Your task to perform on an android device: open app "Facebook Lite" (install if not already installed) Image 0: 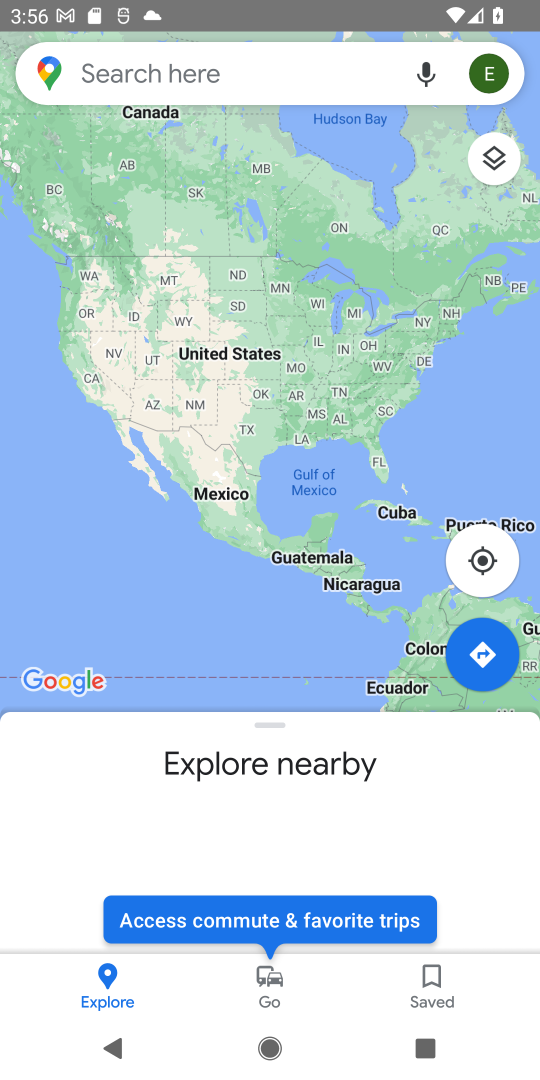
Step 0: press home button
Your task to perform on an android device: open app "Facebook Lite" (install if not already installed) Image 1: 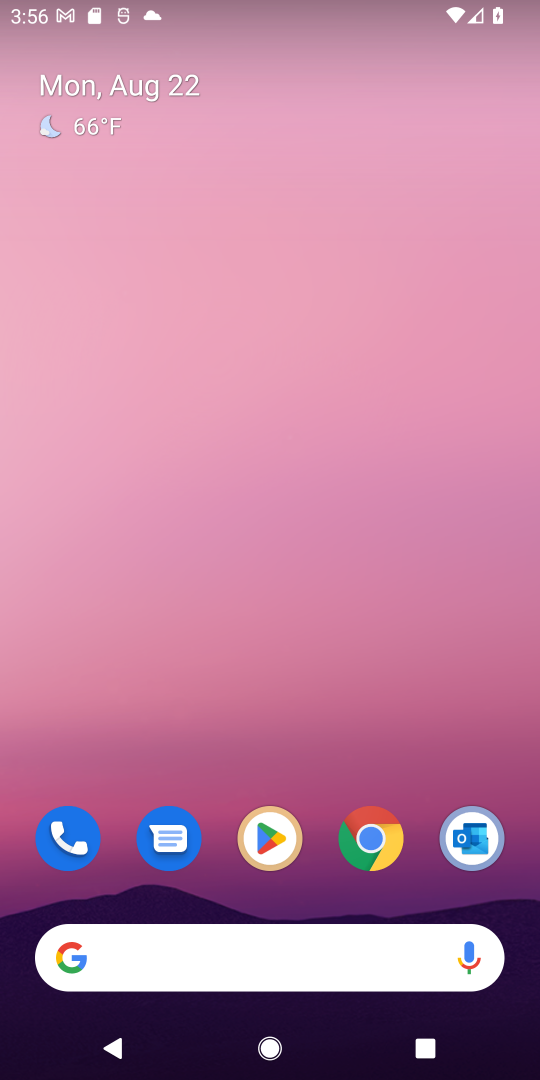
Step 1: click (279, 815)
Your task to perform on an android device: open app "Facebook Lite" (install if not already installed) Image 2: 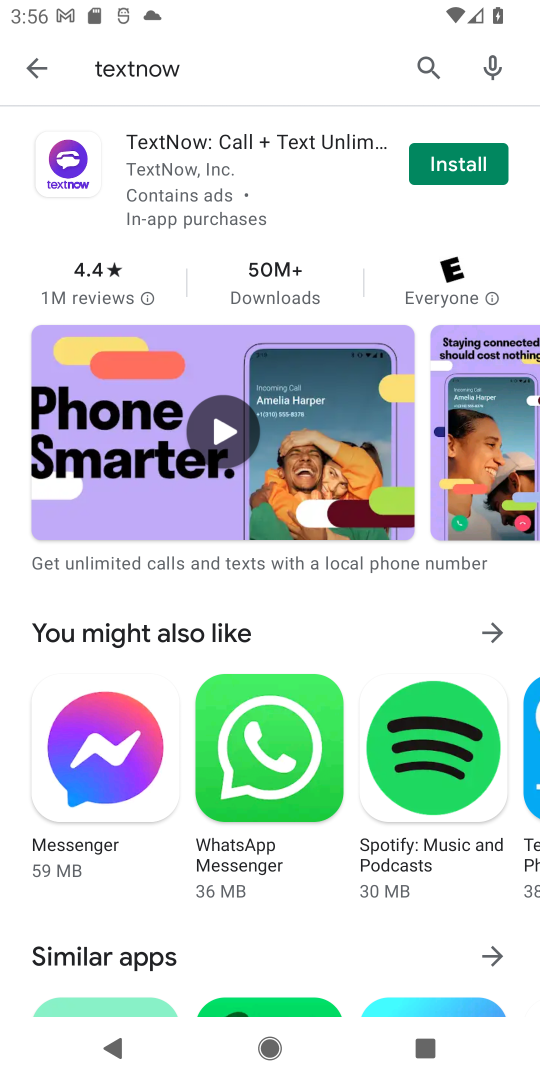
Step 2: click (412, 71)
Your task to perform on an android device: open app "Facebook Lite" (install if not already installed) Image 3: 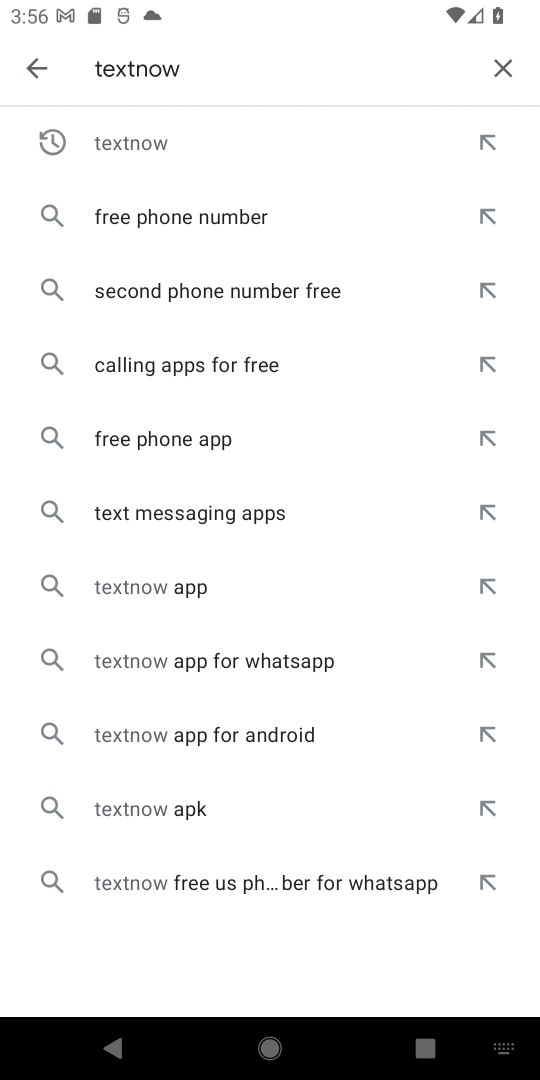
Step 3: click (501, 59)
Your task to perform on an android device: open app "Facebook Lite" (install if not already installed) Image 4: 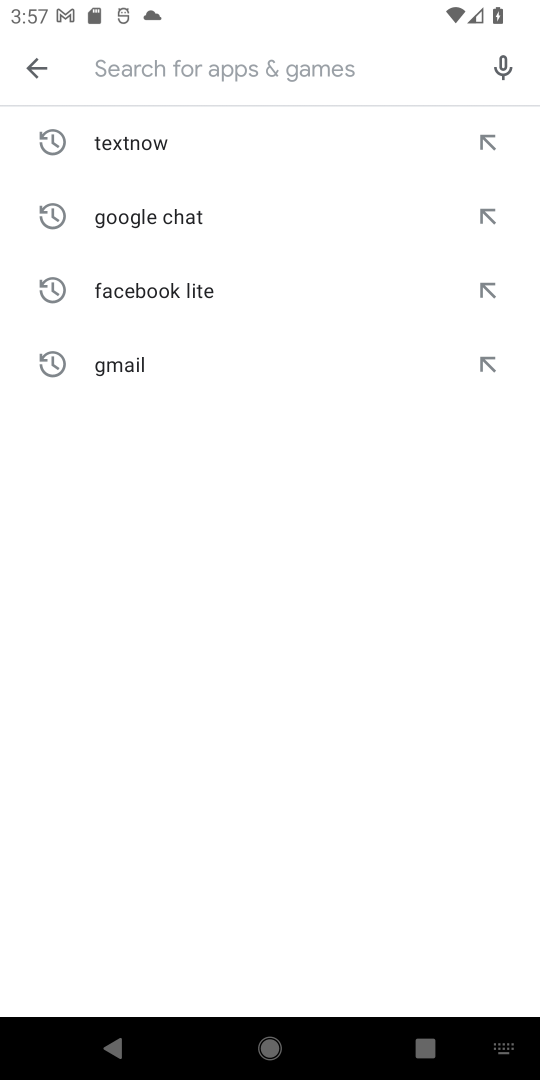
Step 4: click (141, 66)
Your task to perform on an android device: open app "Facebook Lite" (install if not already installed) Image 5: 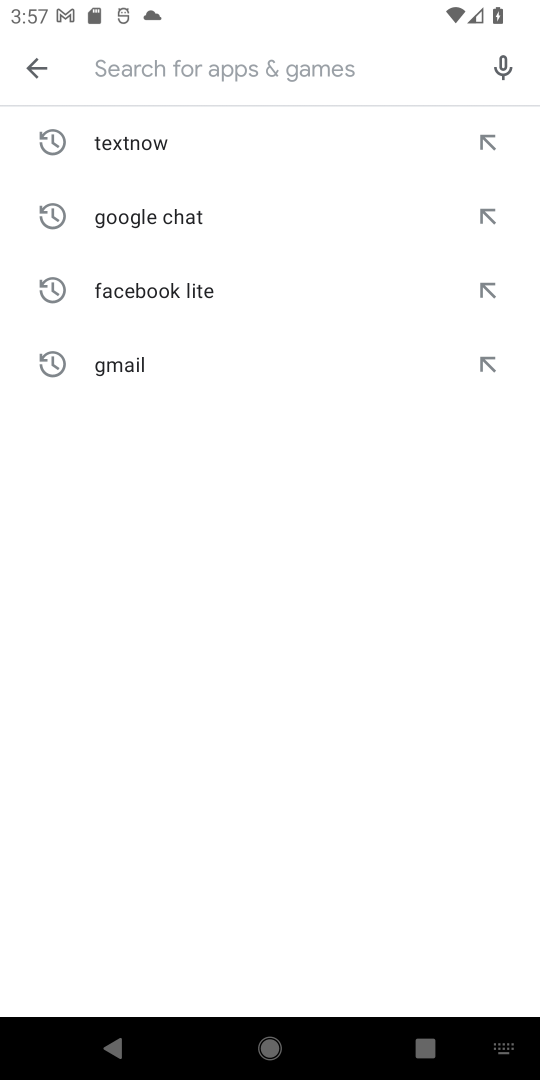
Step 5: type "Facebook Lite"
Your task to perform on an android device: open app "Facebook Lite" (install if not already installed) Image 6: 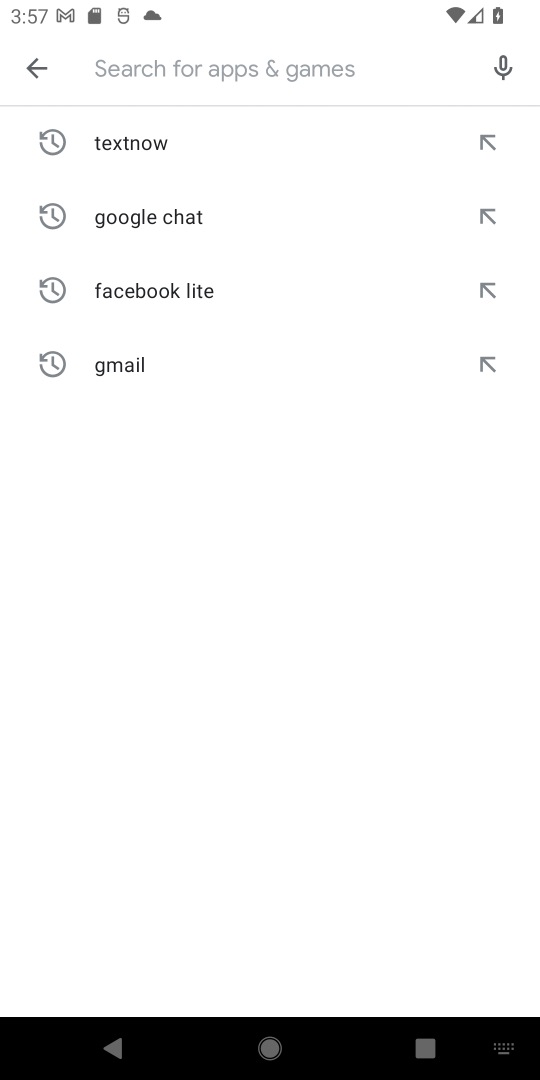
Step 6: click (56, 534)
Your task to perform on an android device: open app "Facebook Lite" (install if not already installed) Image 7: 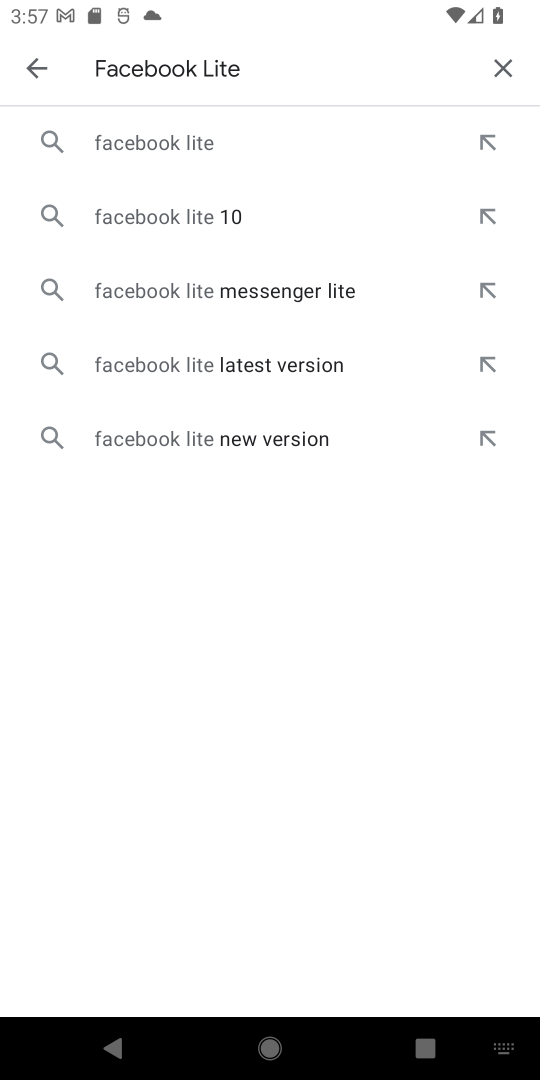
Step 7: click (164, 141)
Your task to perform on an android device: open app "Facebook Lite" (install if not already installed) Image 8: 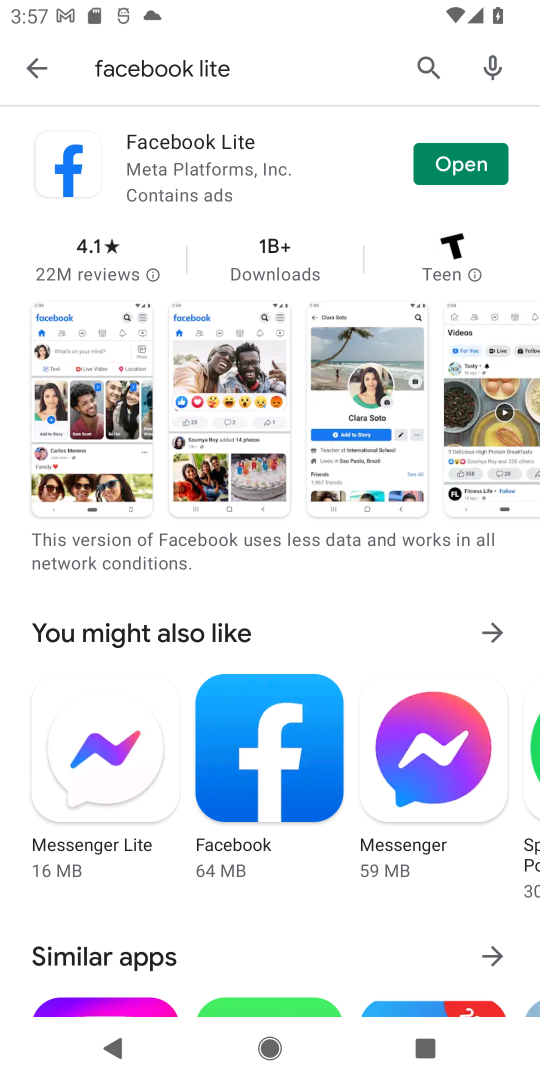
Step 8: click (474, 169)
Your task to perform on an android device: open app "Facebook Lite" (install if not already installed) Image 9: 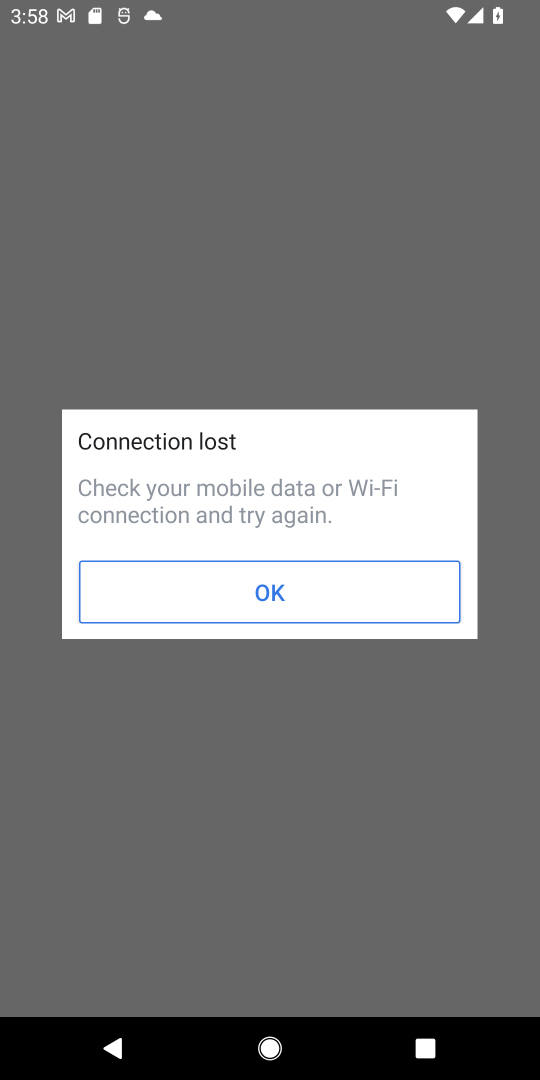
Step 9: press home button
Your task to perform on an android device: open app "Facebook Lite" (install if not already installed) Image 10: 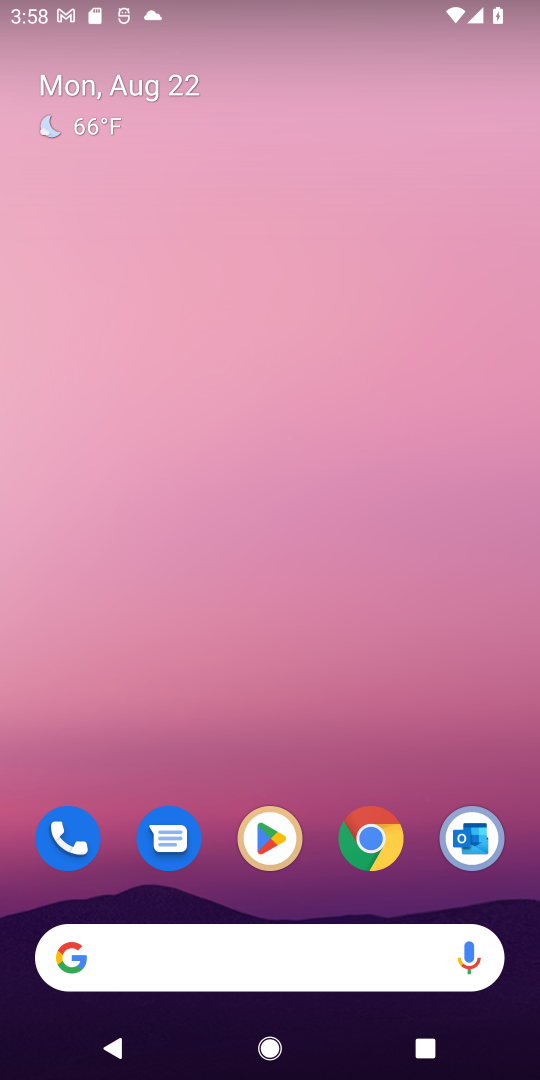
Step 10: click (269, 837)
Your task to perform on an android device: open app "Facebook Lite" (install if not already installed) Image 11: 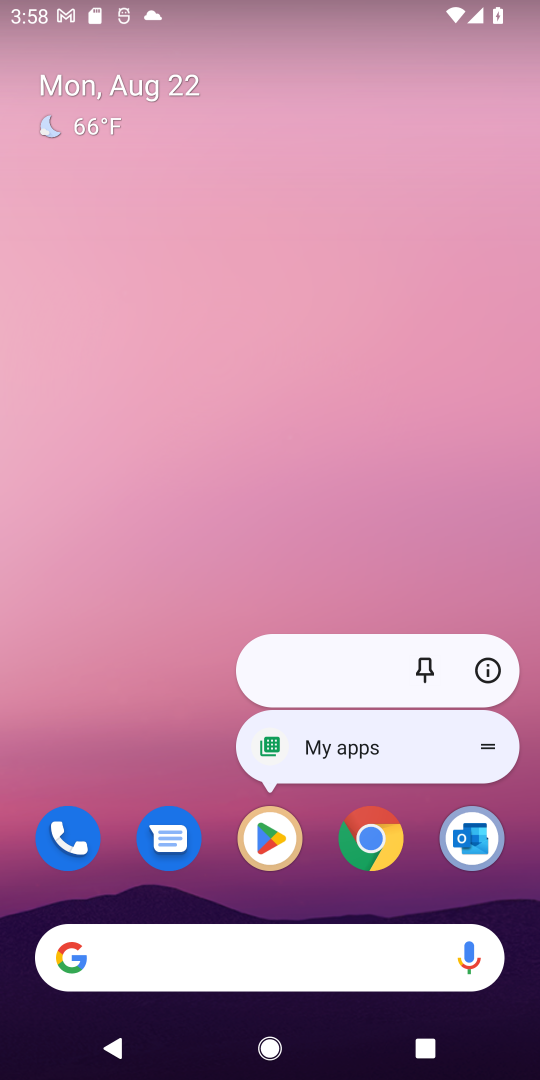
Step 11: click (275, 839)
Your task to perform on an android device: open app "Facebook Lite" (install if not already installed) Image 12: 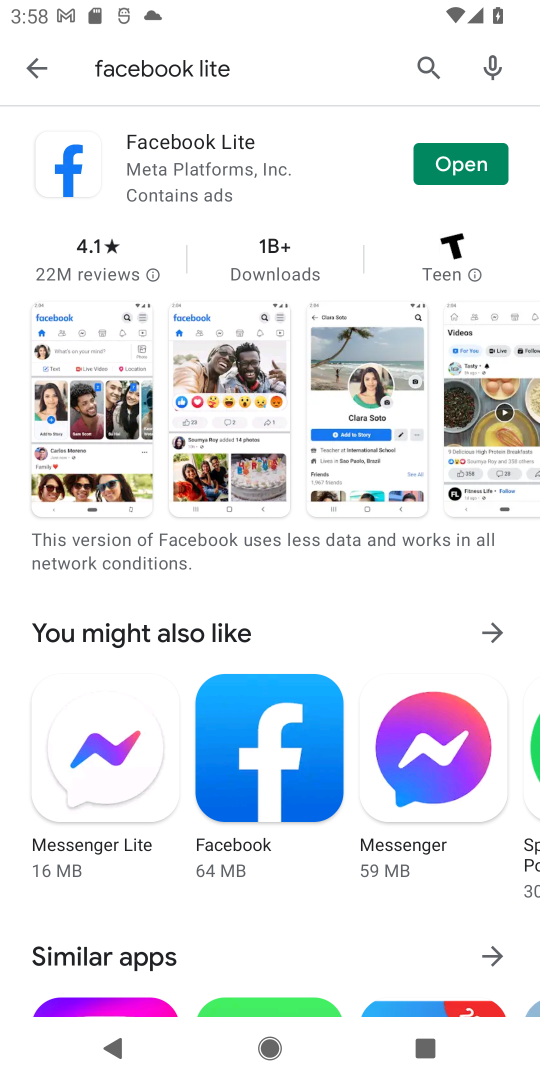
Step 12: click (432, 58)
Your task to perform on an android device: open app "Facebook Lite" (install if not already installed) Image 13: 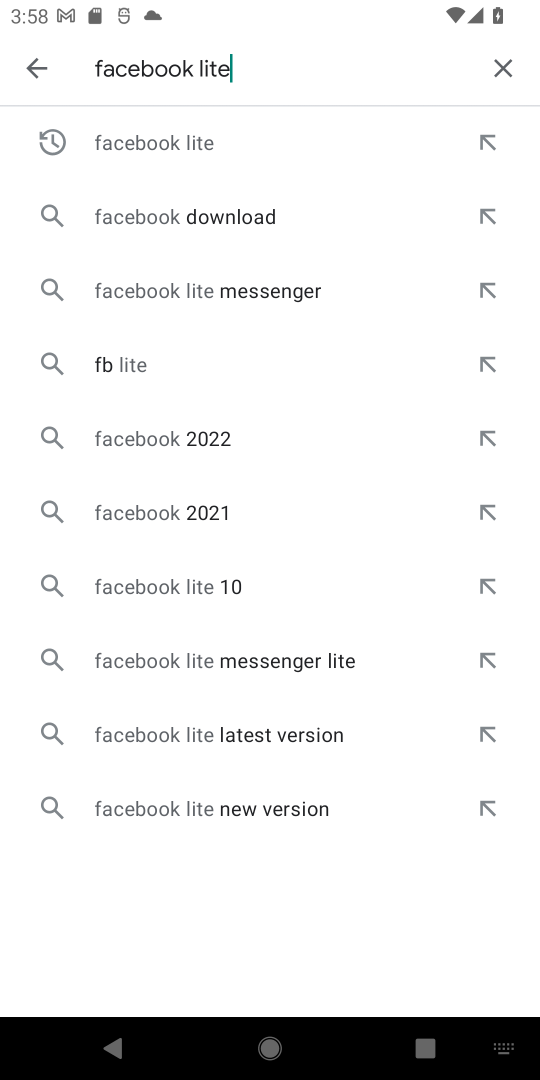
Step 13: click (166, 142)
Your task to perform on an android device: open app "Facebook Lite" (install if not already installed) Image 14: 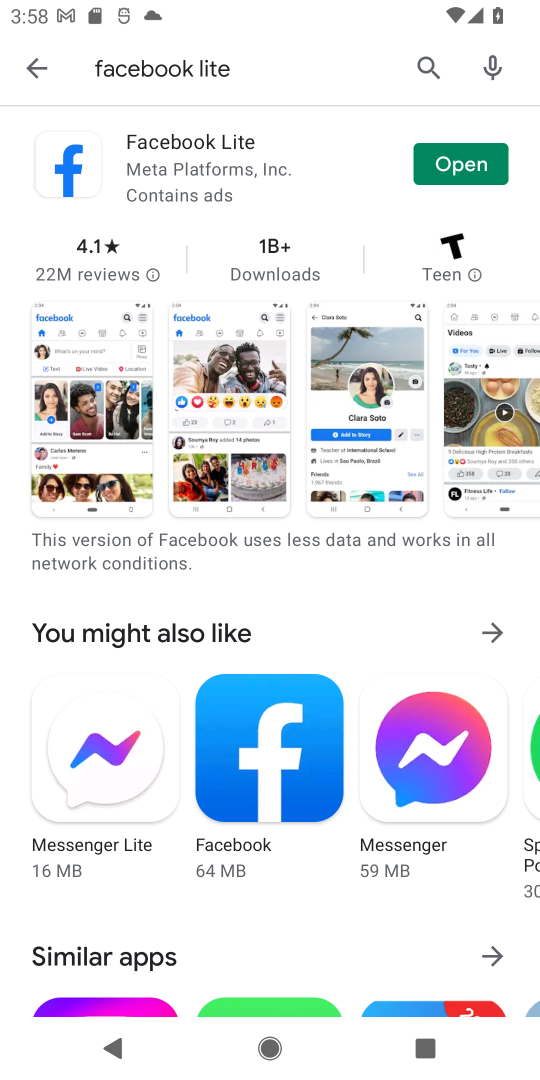
Step 14: click (431, 150)
Your task to perform on an android device: open app "Facebook Lite" (install if not already installed) Image 15: 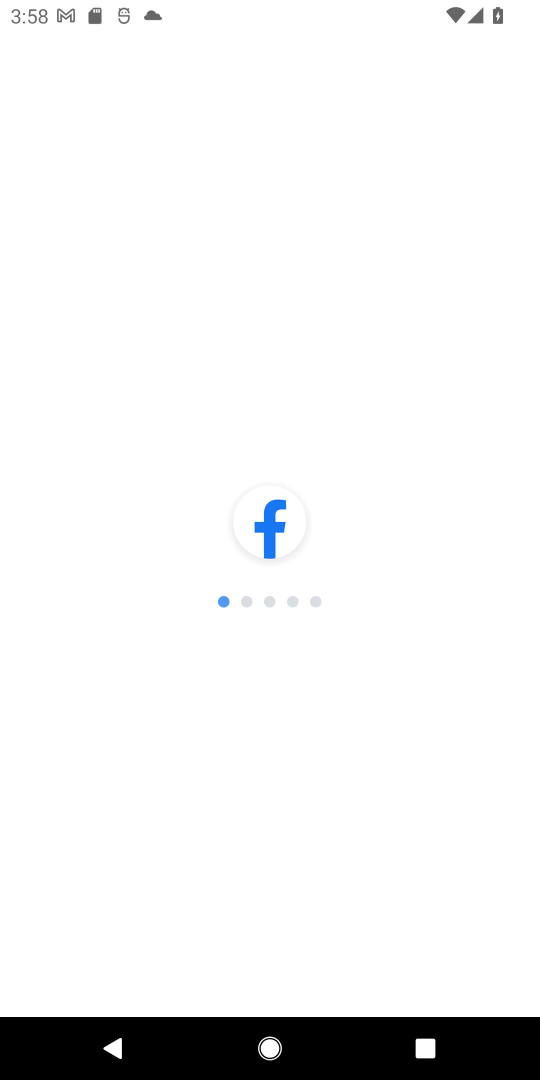
Step 15: task complete